Your task to perform on an android device: Turn on the flashlight Image 0: 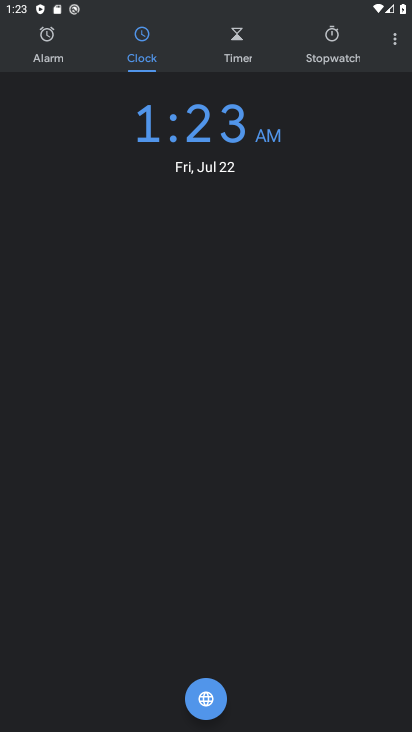
Step 0: drag from (241, 8) to (239, 543)
Your task to perform on an android device: Turn on the flashlight Image 1: 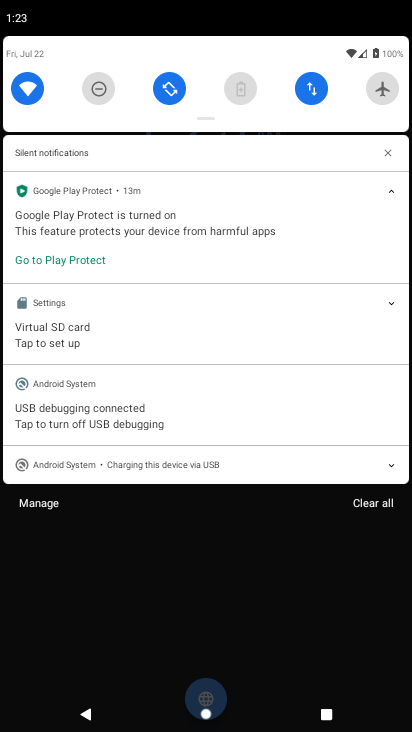
Step 1: drag from (205, 92) to (254, 550)
Your task to perform on an android device: Turn on the flashlight Image 2: 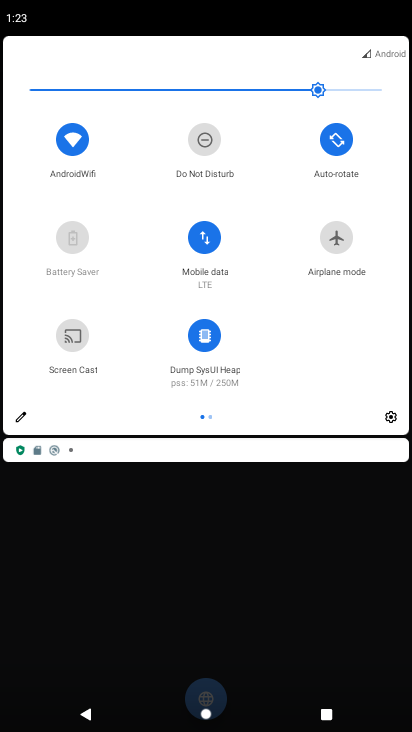
Step 2: drag from (316, 340) to (5, 398)
Your task to perform on an android device: Turn on the flashlight Image 3: 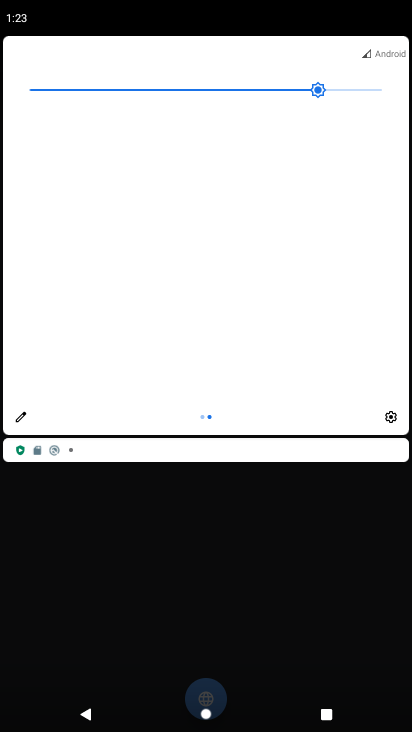
Step 3: click (16, 415)
Your task to perform on an android device: Turn on the flashlight Image 4: 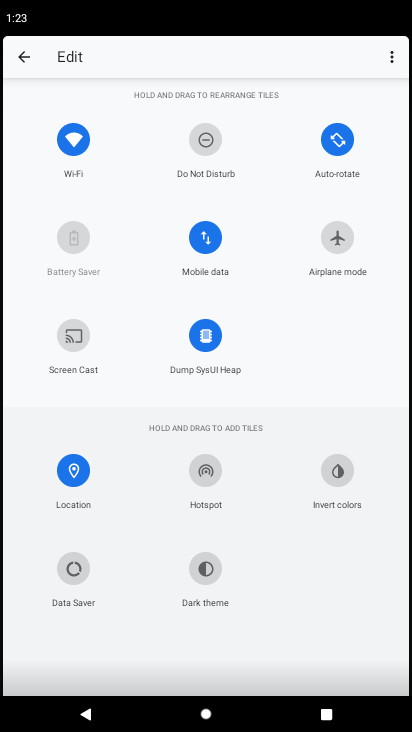
Step 4: task complete